Your task to perform on an android device: Open Youtube and go to the subscriptions tab Image 0: 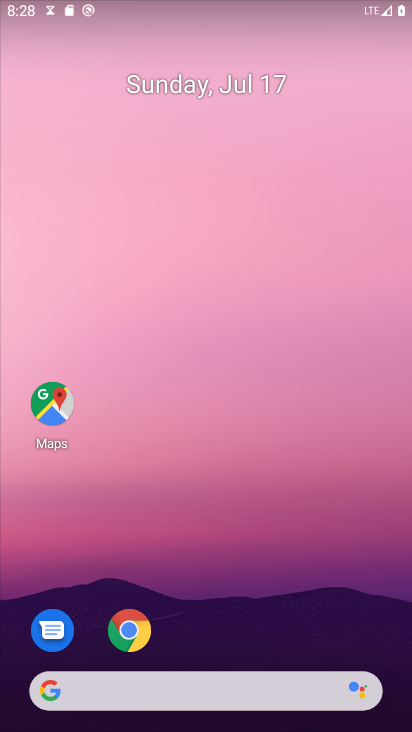
Step 0: drag from (204, 624) to (219, 19)
Your task to perform on an android device: Open Youtube and go to the subscriptions tab Image 1: 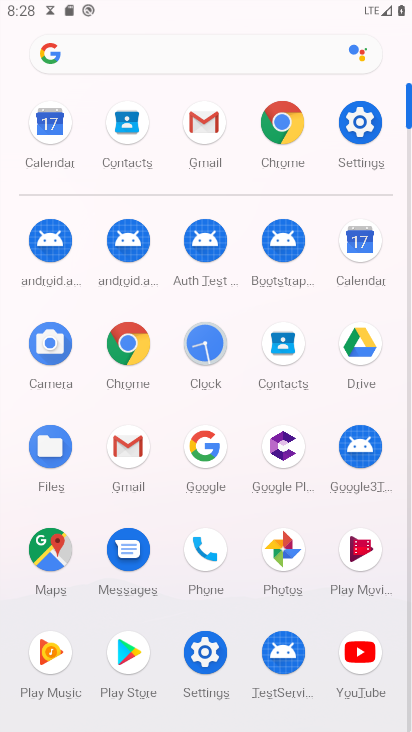
Step 1: click (355, 655)
Your task to perform on an android device: Open Youtube and go to the subscriptions tab Image 2: 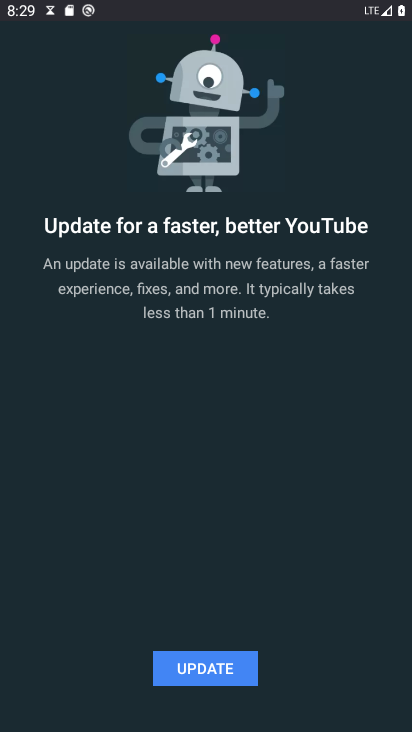
Step 2: click (180, 666)
Your task to perform on an android device: Open Youtube and go to the subscriptions tab Image 3: 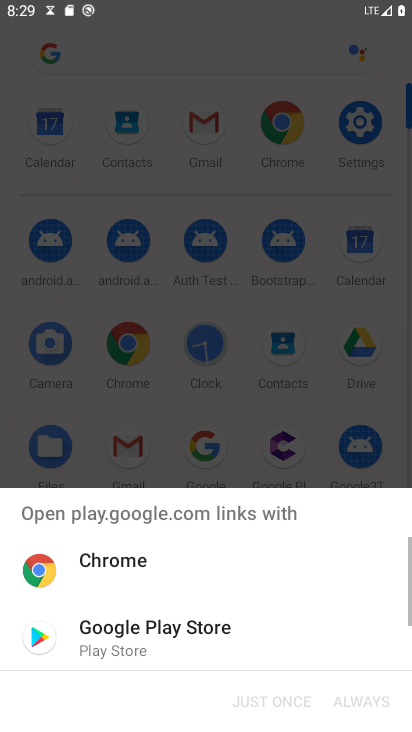
Step 3: click (170, 647)
Your task to perform on an android device: Open Youtube and go to the subscriptions tab Image 4: 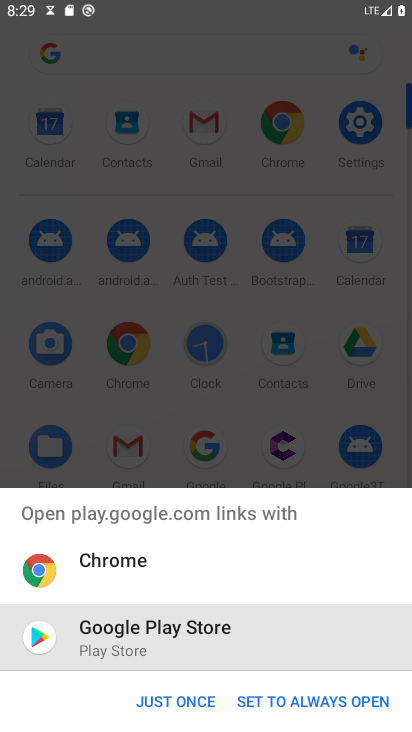
Step 4: click (166, 701)
Your task to perform on an android device: Open Youtube and go to the subscriptions tab Image 5: 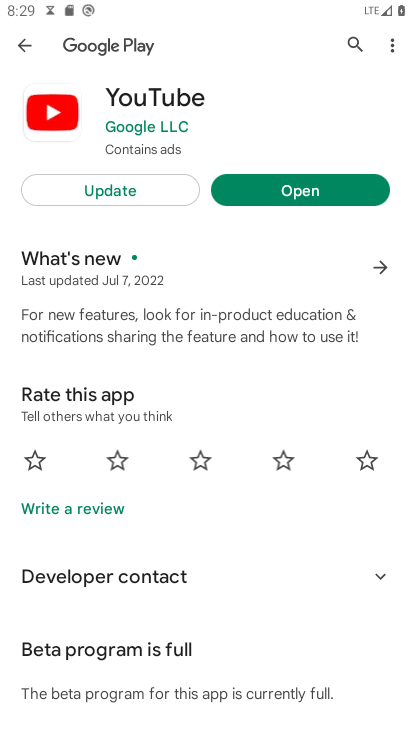
Step 5: click (110, 191)
Your task to perform on an android device: Open Youtube and go to the subscriptions tab Image 6: 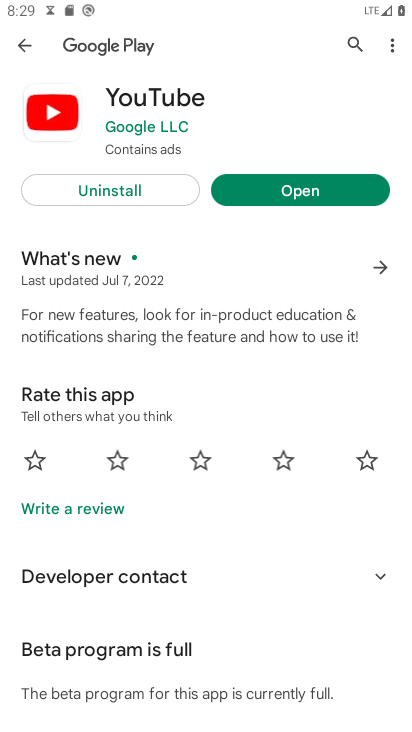
Step 6: click (317, 187)
Your task to perform on an android device: Open Youtube and go to the subscriptions tab Image 7: 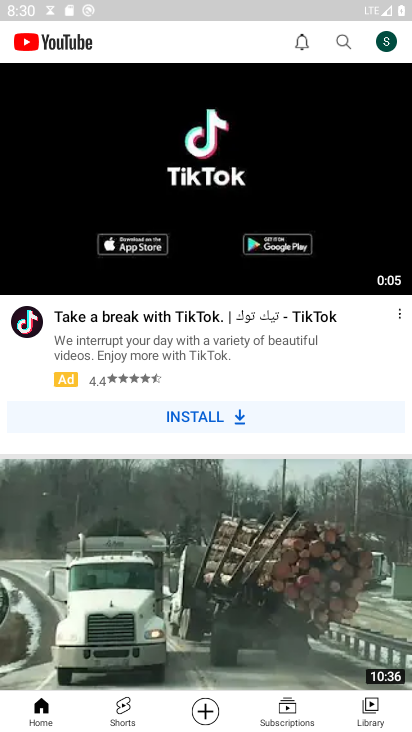
Step 7: click (285, 718)
Your task to perform on an android device: Open Youtube and go to the subscriptions tab Image 8: 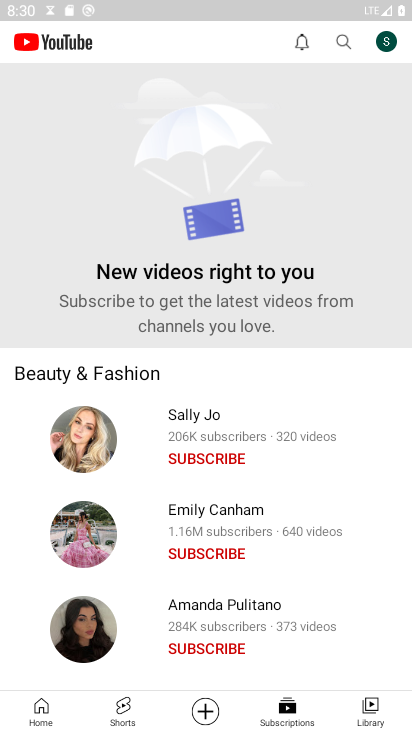
Step 8: task complete